Your task to perform on an android device: Open ESPN.com Image 0: 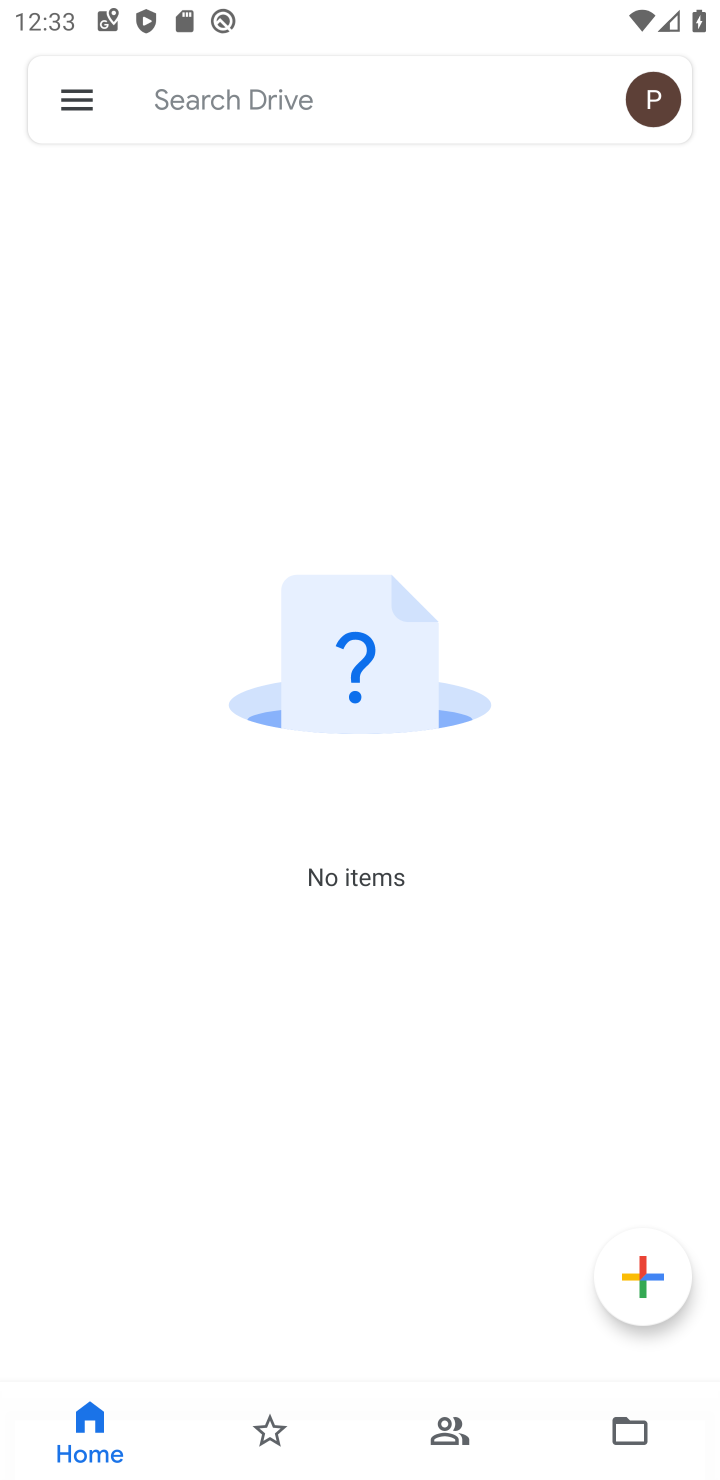
Step 0: press home button
Your task to perform on an android device: Open ESPN.com Image 1: 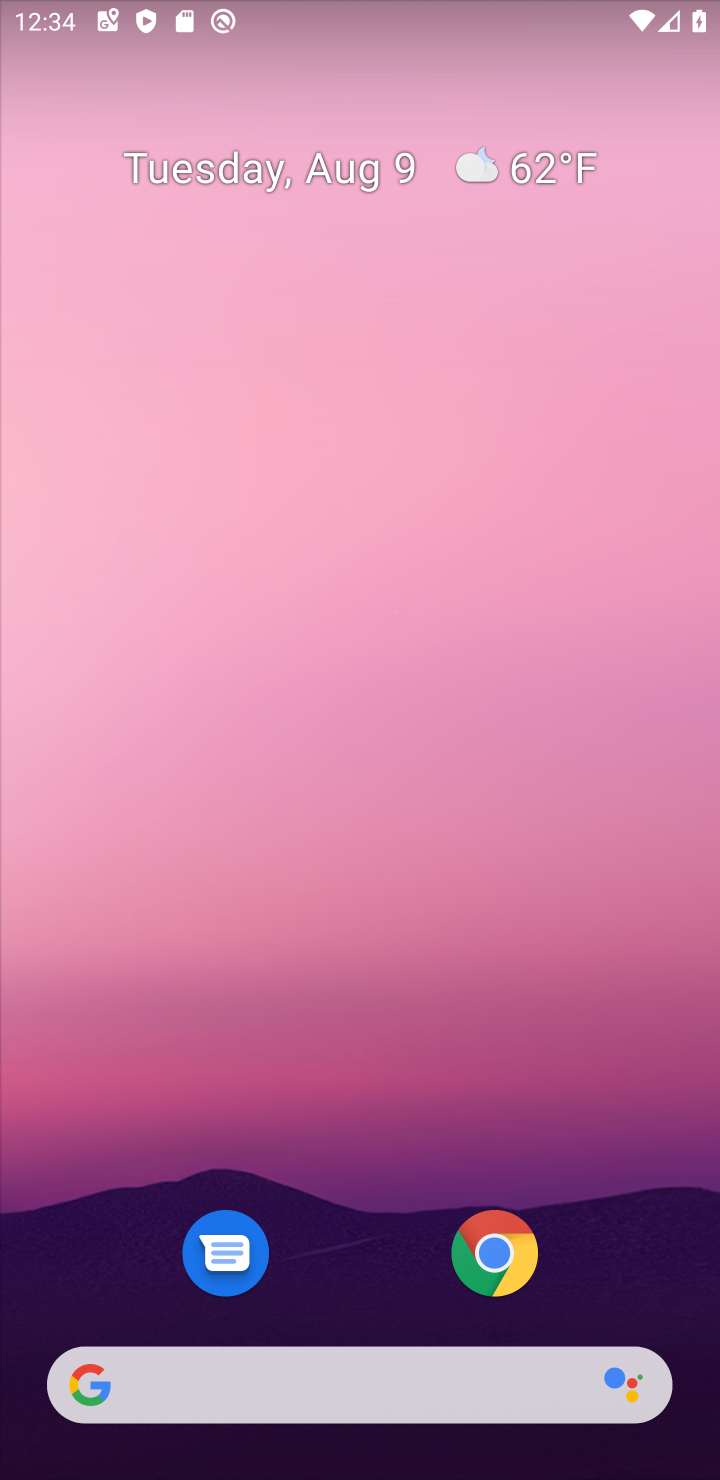
Step 1: drag from (553, 881) to (299, 114)
Your task to perform on an android device: Open ESPN.com Image 2: 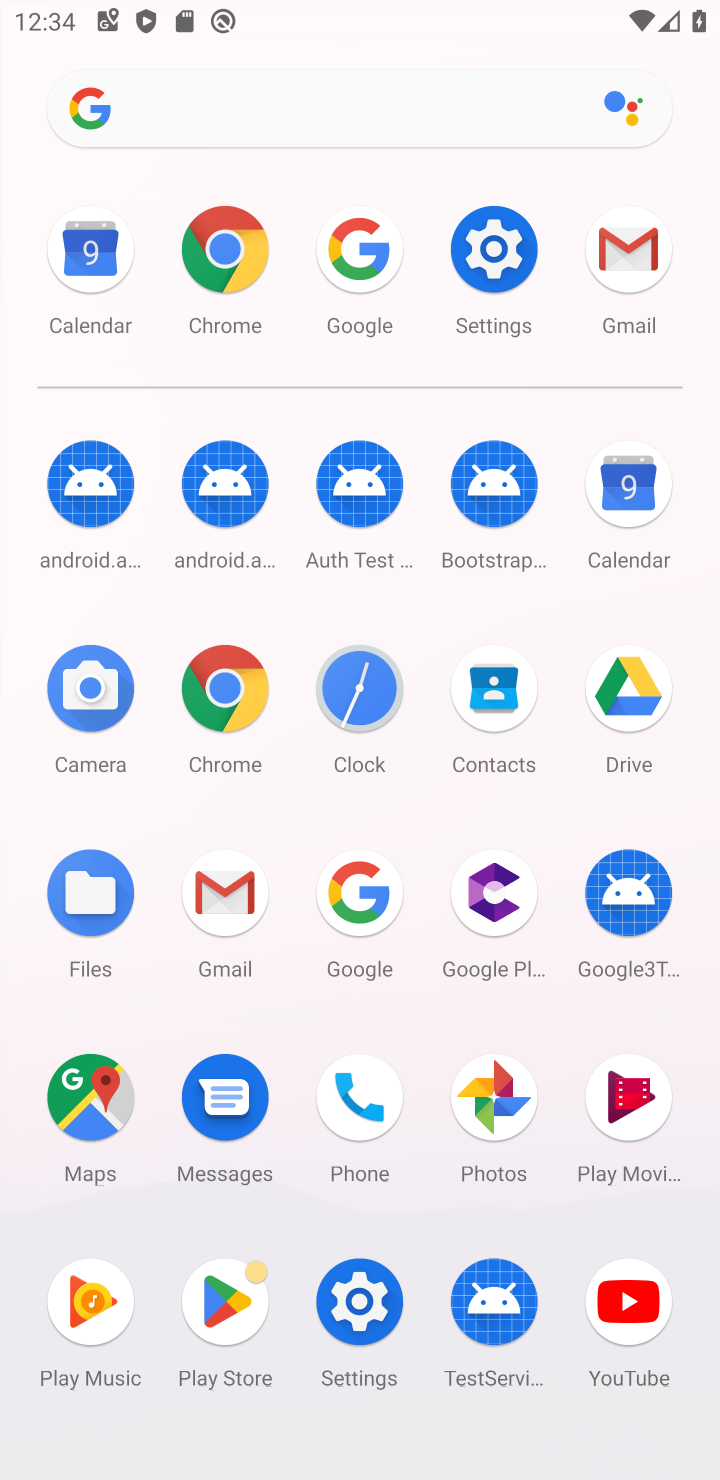
Step 2: click (353, 887)
Your task to perform on an android device: Open ESPN.com Image 3: 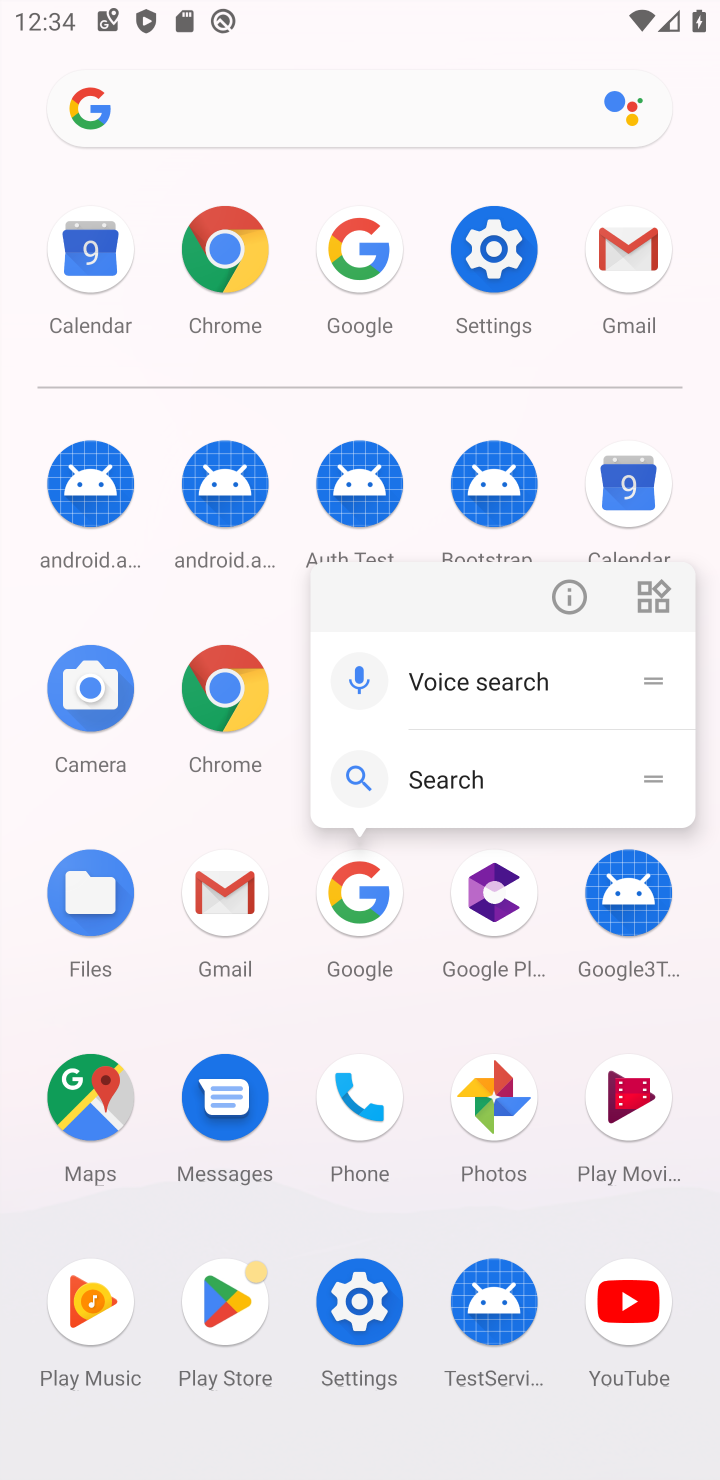
Step 3: click (353, 887)
Your task to perform on an android device: Open ESPN.com Image 4: 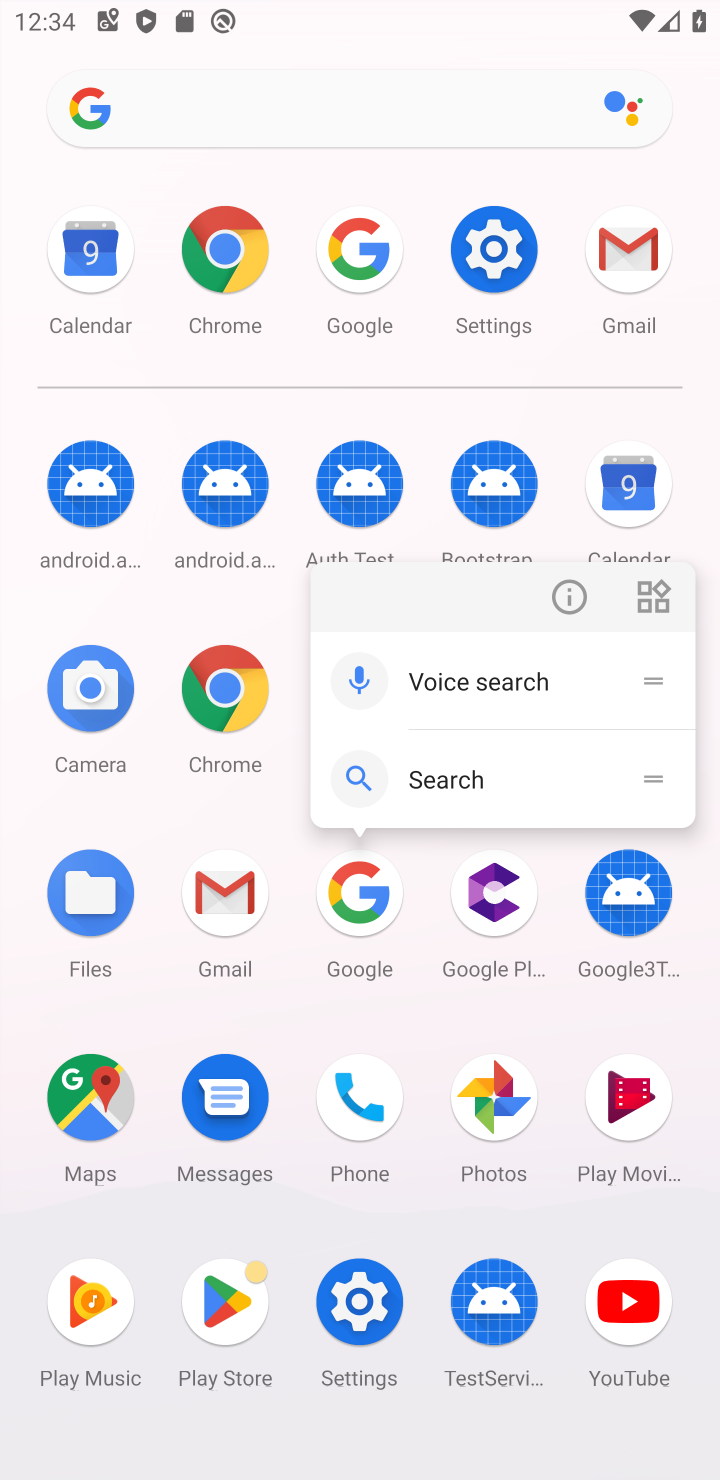
Step 4: click (353, 887)
Your task to perform on an android device: Open ESPN.com Image 5: 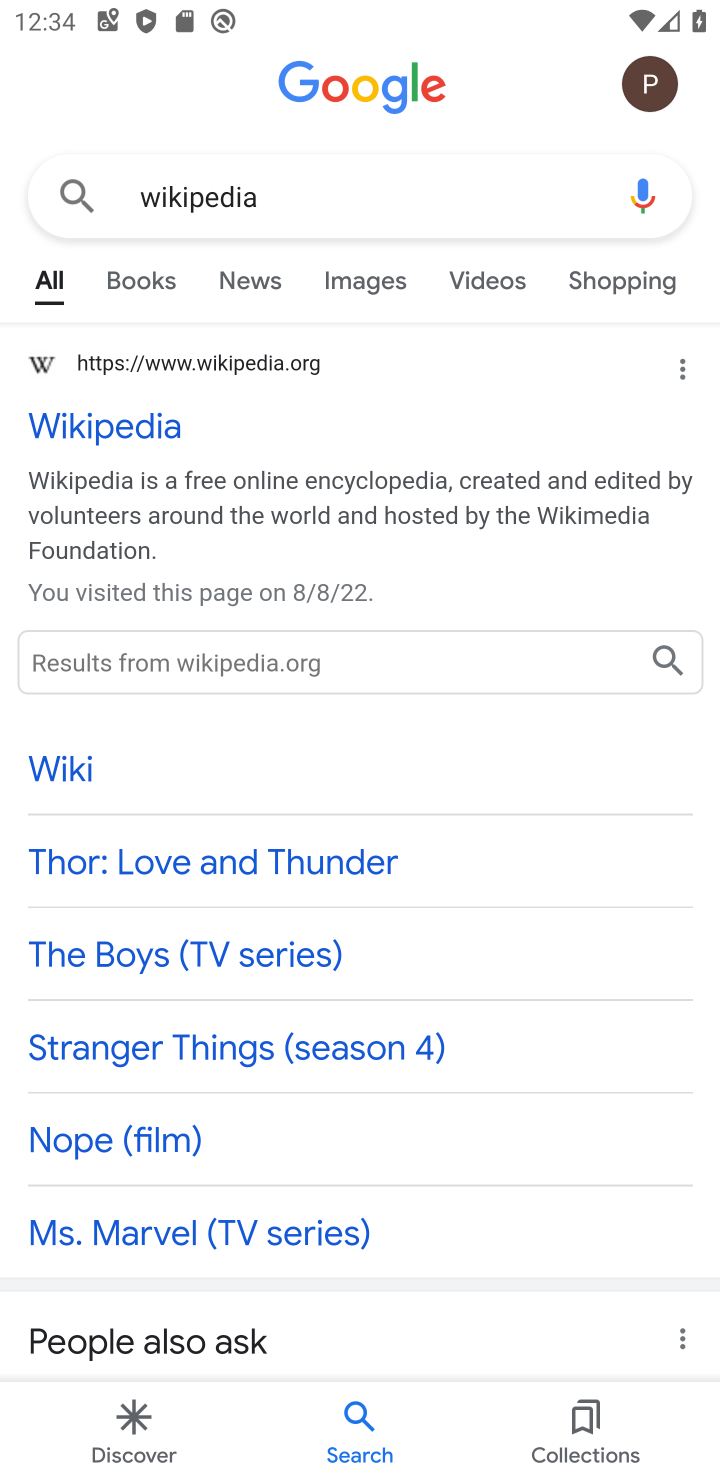
Step 5: press back button
Your task to perform on an android device: Open ESPN.com Image 6: 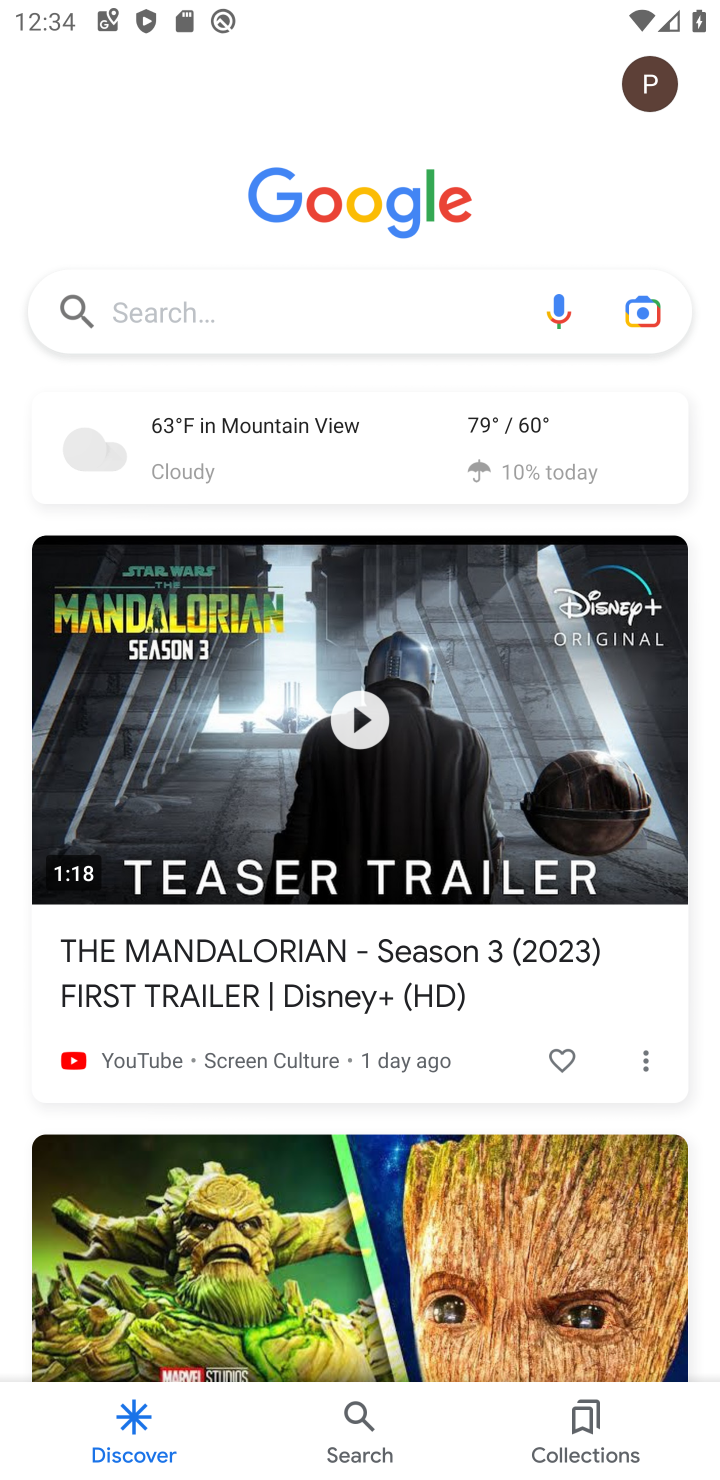
Step 6: click (174, 331)
Your task to perform on an android device: Open ESPN.com Image 7: 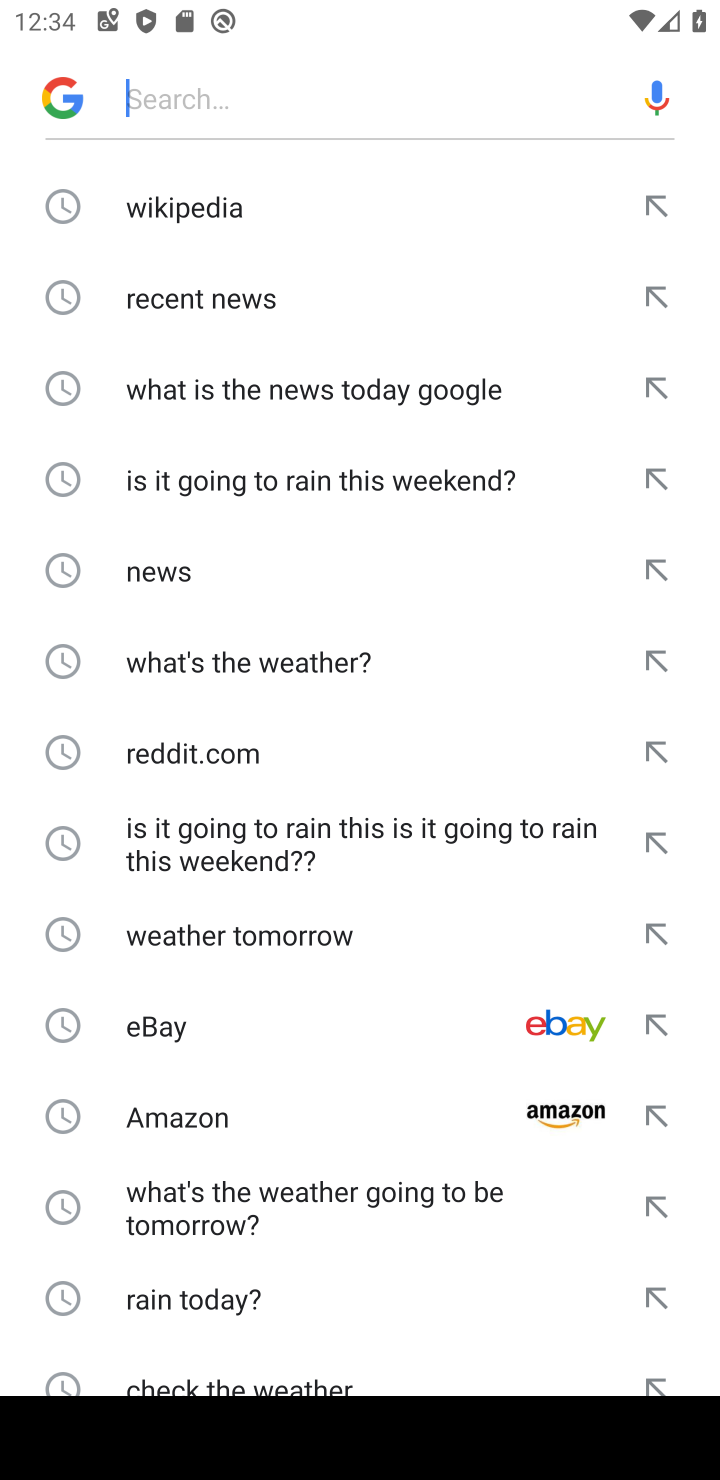
Step 7: type "ESPN.com"
Your task to perform on an android device: Open ESPN.com Image 8: 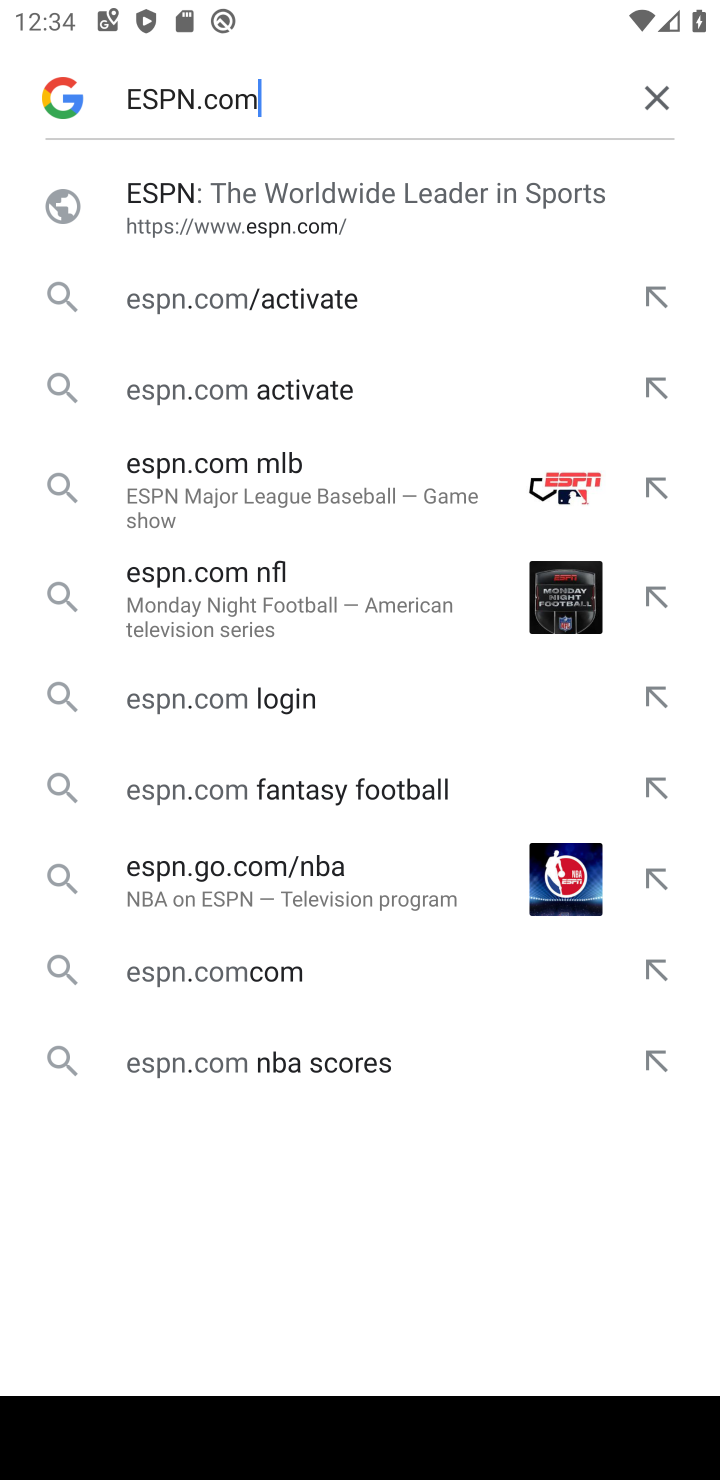
Step 8: click (418, 235)
Your task to perform on an android device: Open ESPN.com Image 9: 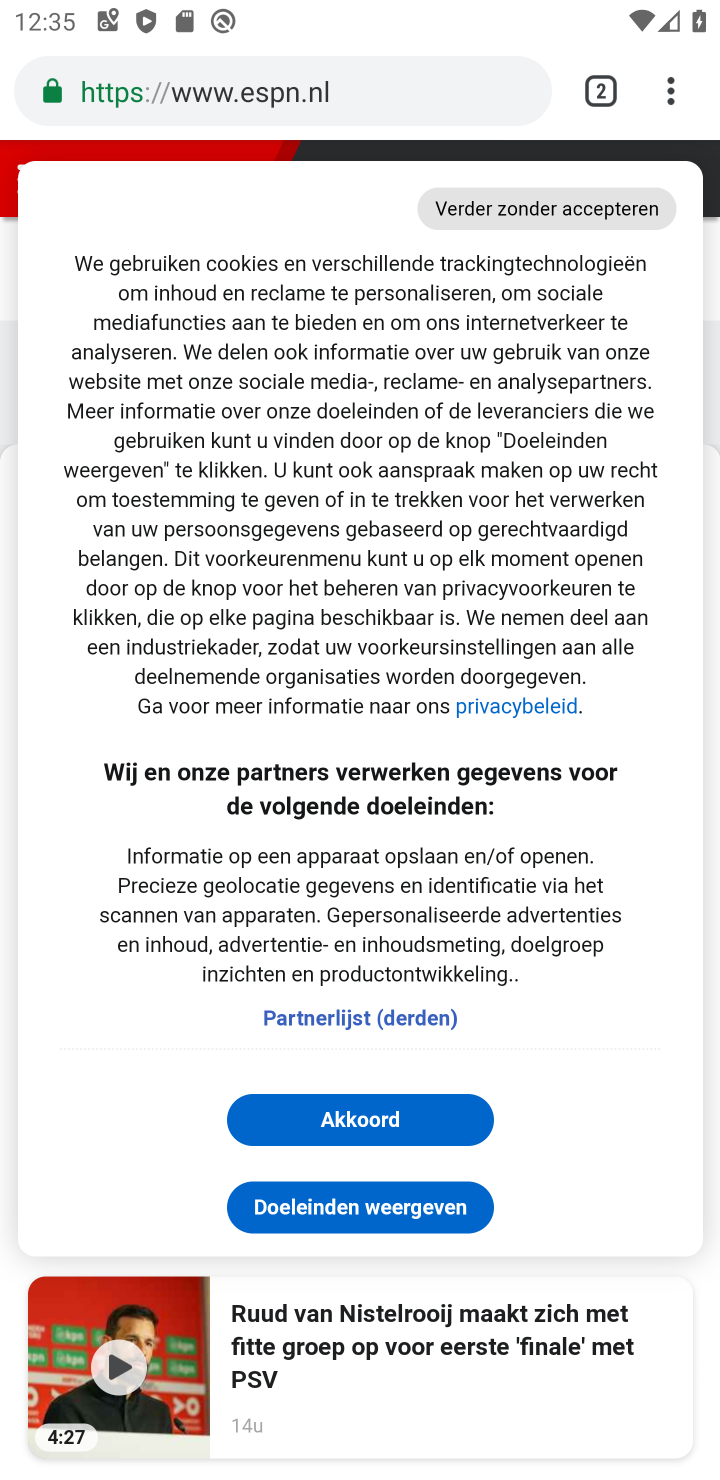
Step 9: task complete